Your task to perform on an android device: turn on javascript in the chrome app Image 0: 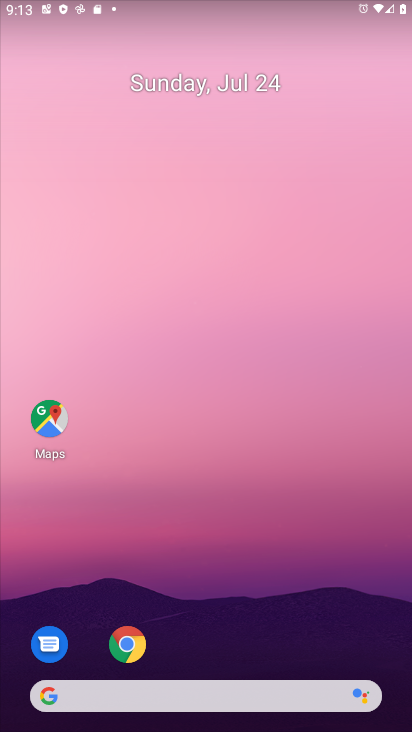
Step 0: drag from (230, 579) to (215, 140)
Your task to perform on an android device: turn on javascript in the chrome app Image 1: 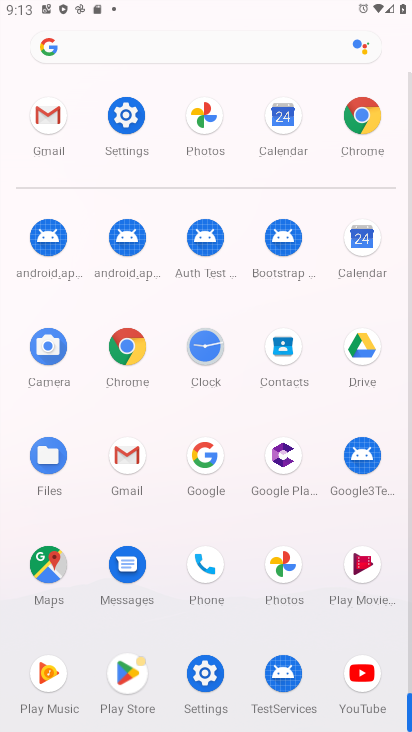
Step 1: click (360, 121)
Your task to perform on an android device: turn on javascript in the chrome app Image 2: 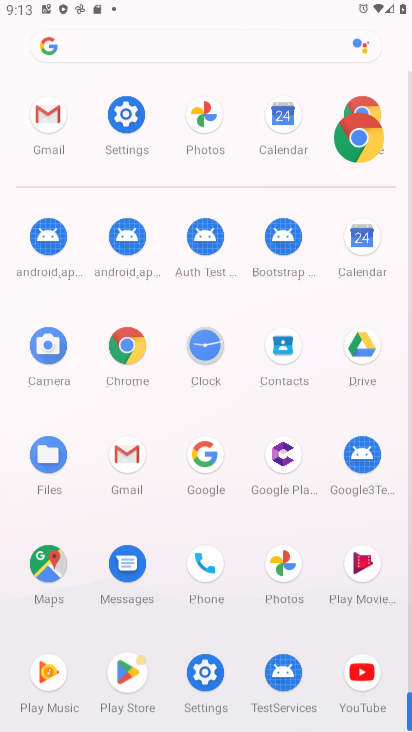
Step 2: click (364, 127)
Your task to perform on an android device: turn on javascript in the chrome app Image 3: 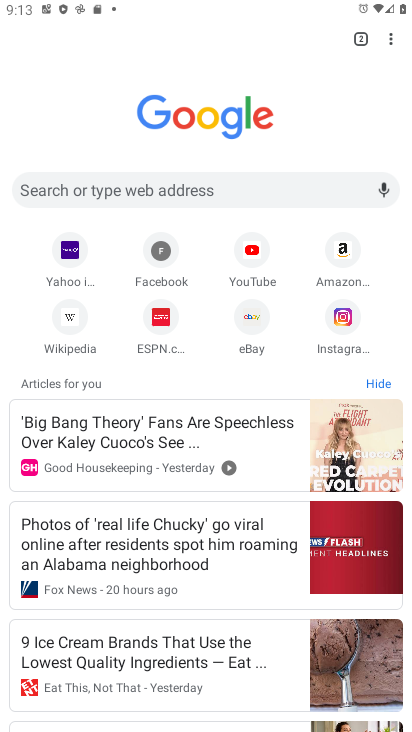
Step 3: drag from (389, 34) to (245, 332)
Your task to perform on an android device: turn on javascript in the chrome app Image 4: 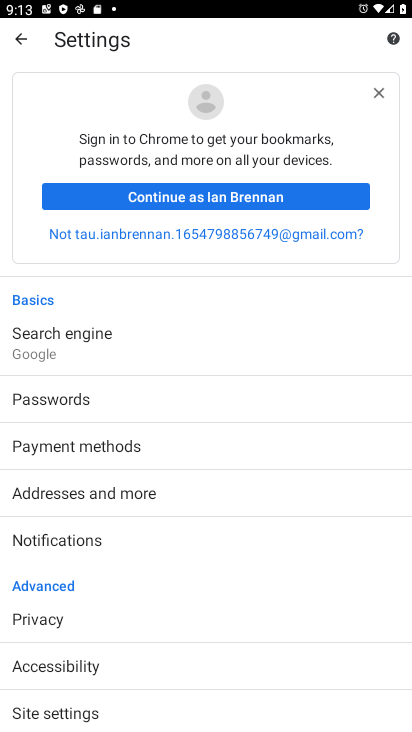
Step 4: drag from (143, 445) to (184, 139)
Your task to perform on an android device: turn on javascript in the chrome app Image 5: 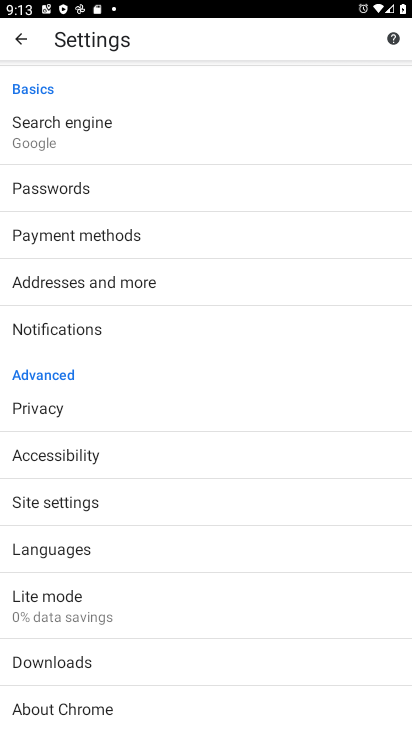
Step 5: drag from (91, 651) to (63, 279)
Your task to perform on an android device: turn on javascript in the chrome app Image 6: 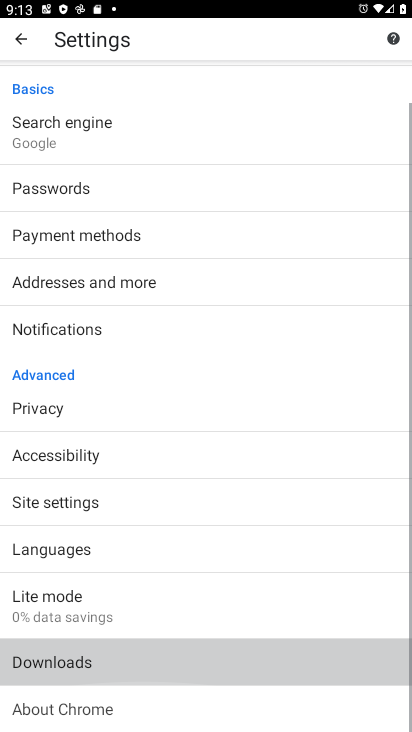
Step 6: drag from (115, 549) to (117, 302)
Your task to perform on an android device: turn on javascript in the chrome app Image 7: 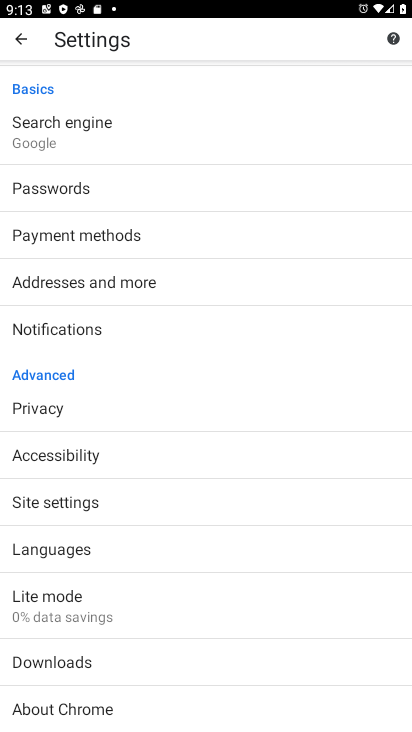
Step 7: click (35, 501)
Your task to perform on an android device: turn on javascript in the chrome app Image 8: 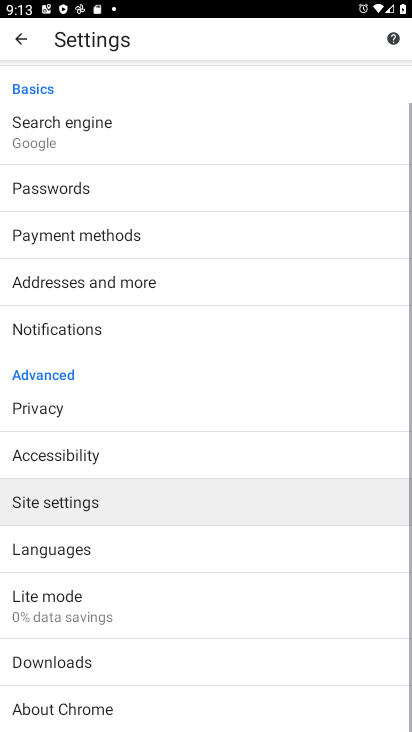
Step 8: click (37, 501)
Your task to perform on an android device: turn on javascript in the chrome app Image 9: 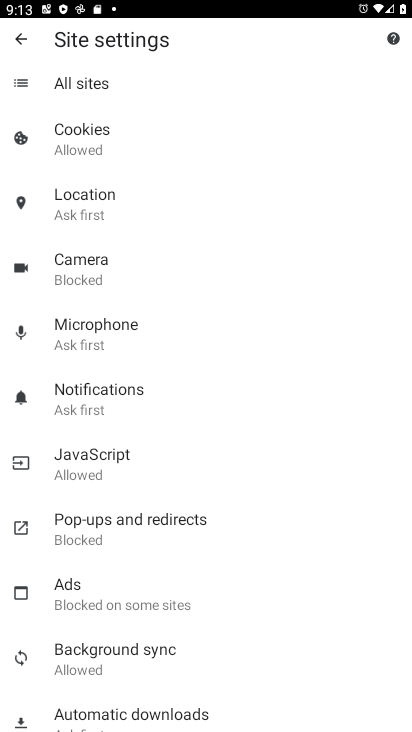
Step 9: click (60, 471)
Your task to perform on an android device: turn on javascript in the chrome app Image 10: 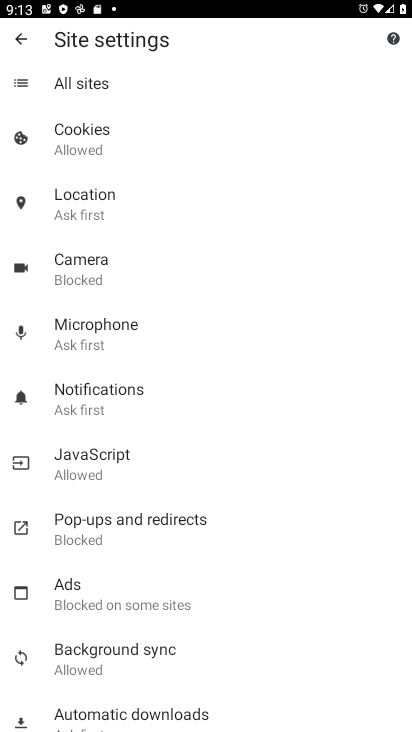
Step 10: click (59, 461)
Your task to perform on an android device: turn on javascript in the chrome app Image 11: 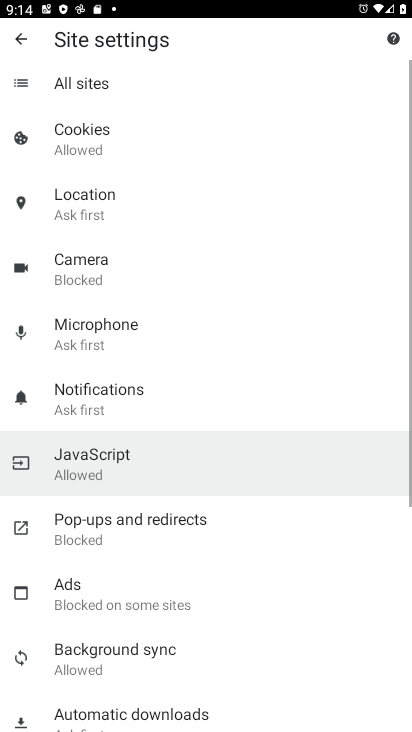
Step 11: click (62, 463)
Your task to perform on an android device: turn on javascript in the chrome app Image 12: 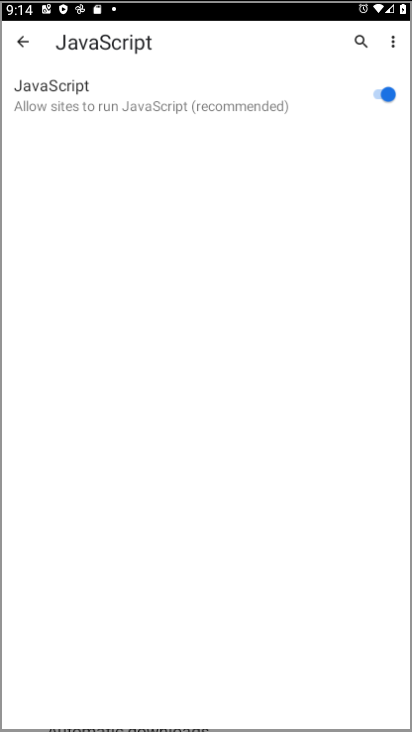
Step 12: click (69, 466)
Your task to perform on an android device: turn on javascript in the chrome app Image 13: 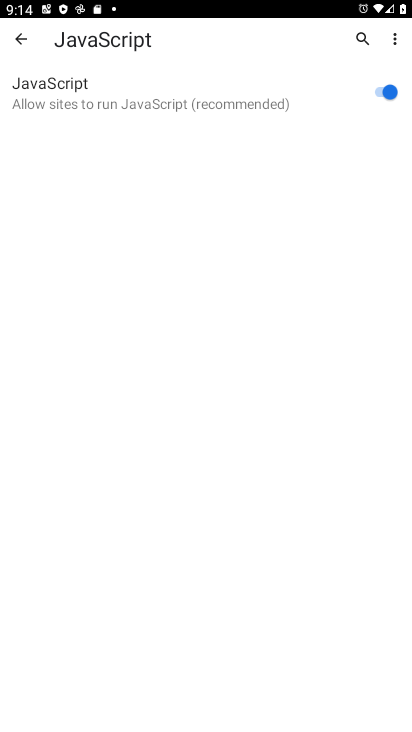
Step 13: task complete